Your task to perform on an android device: toggle sleep mode Image 0: 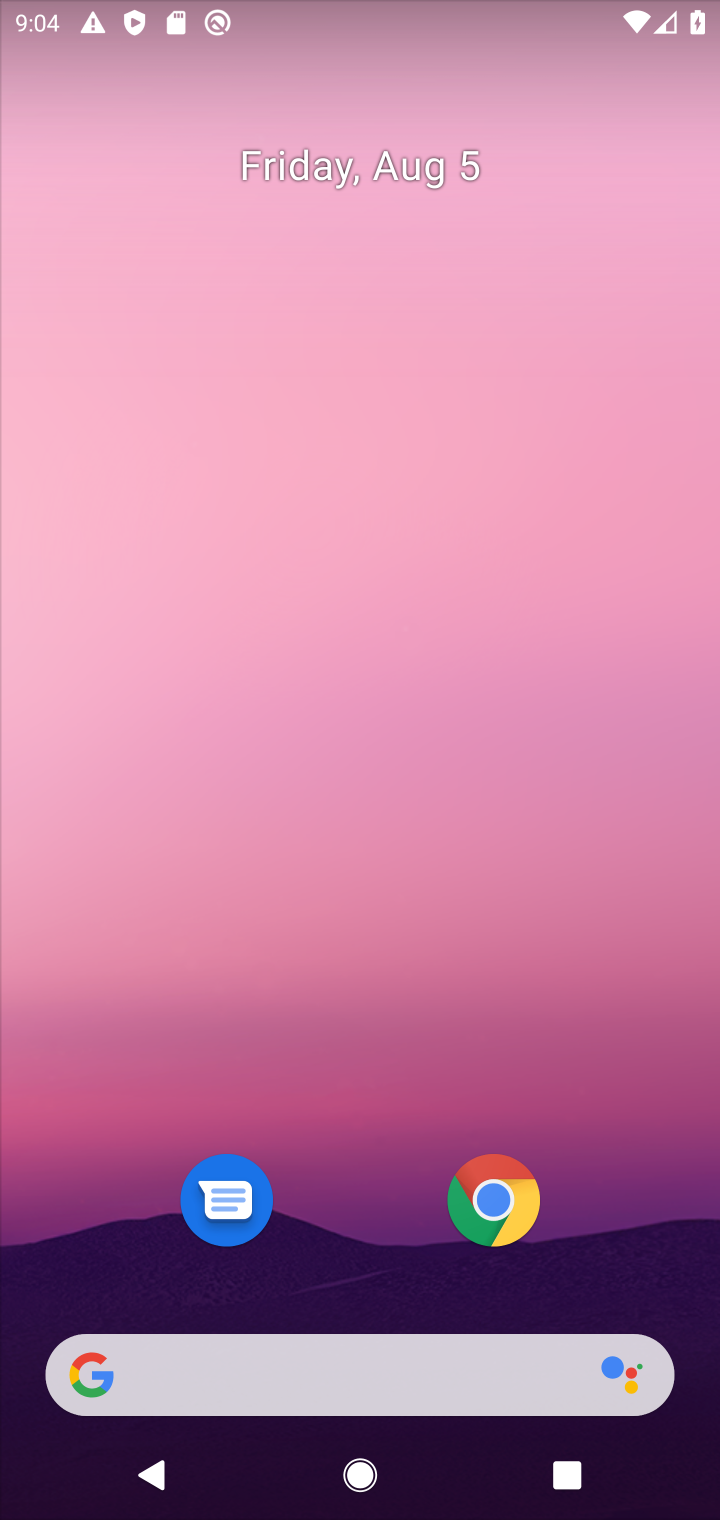
Step 0: drag from (623, 1176) to (657, 204)
Your task to perform on an android device: toggle sleep mode Image 1: 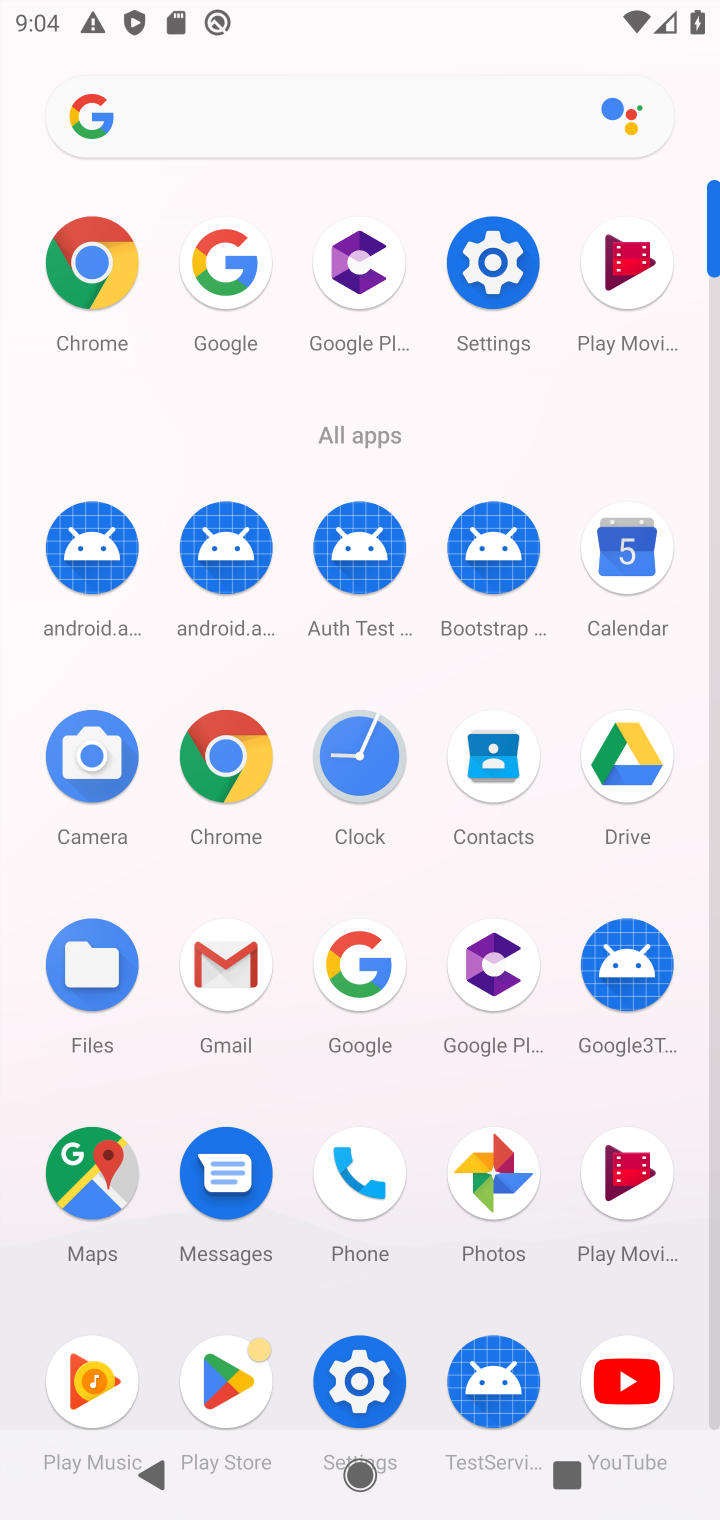
Step 1: click (351, 1387)
Your task to perform on an android device: toggle sleep mode Image 2: 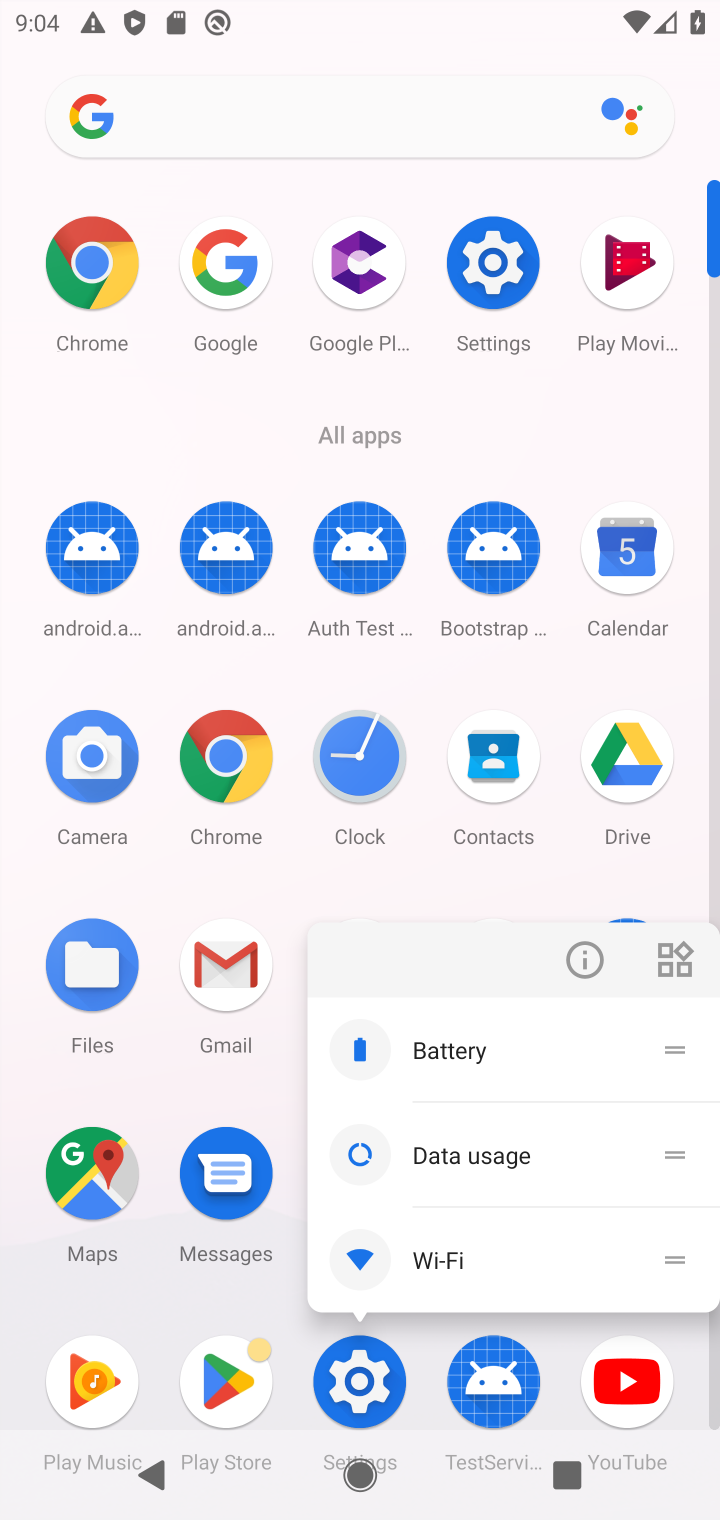
Step 2: click (355, 1366)
Your task to perform on an android device: toggle sleep mode Image 3: 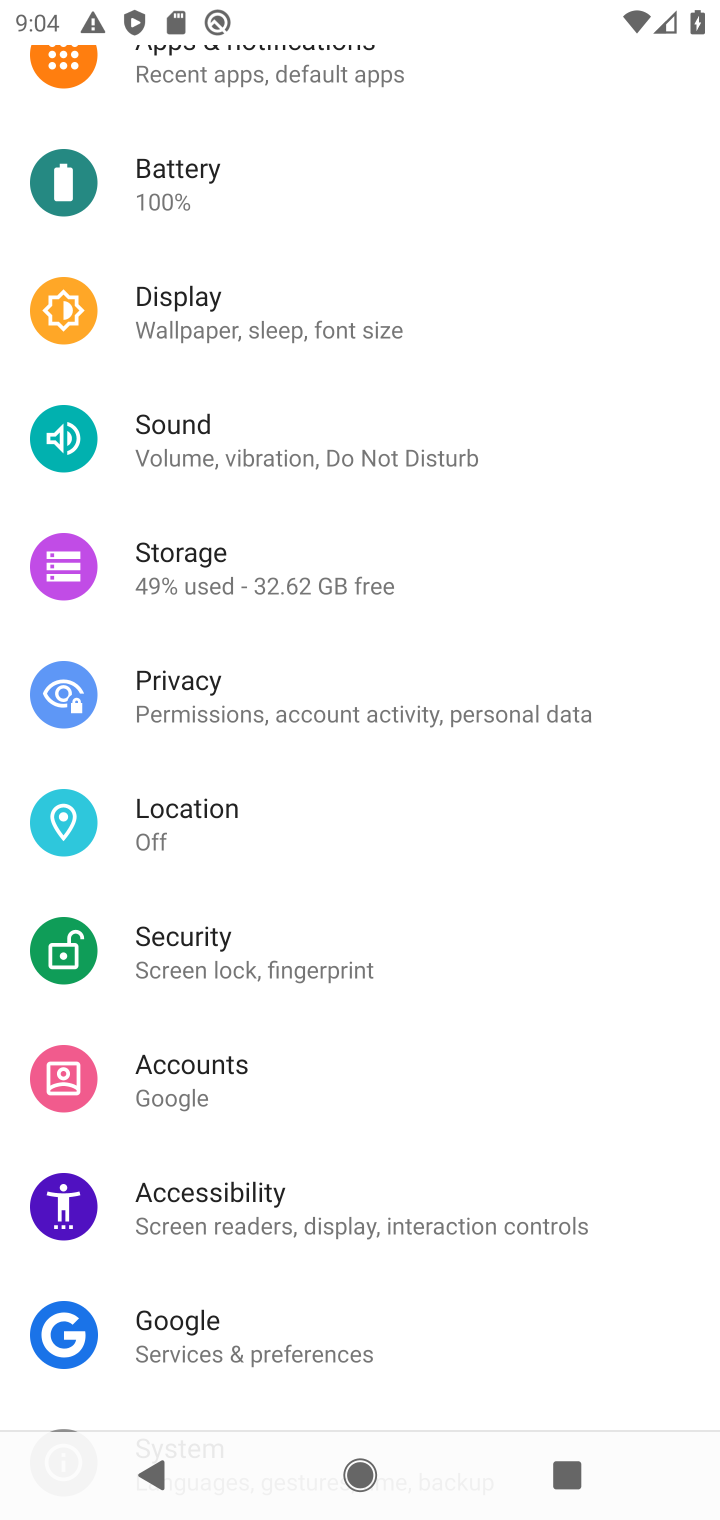
Step 3: click (226, 339)
Your task to perform on an android device: toggle sleep mode Image 4: 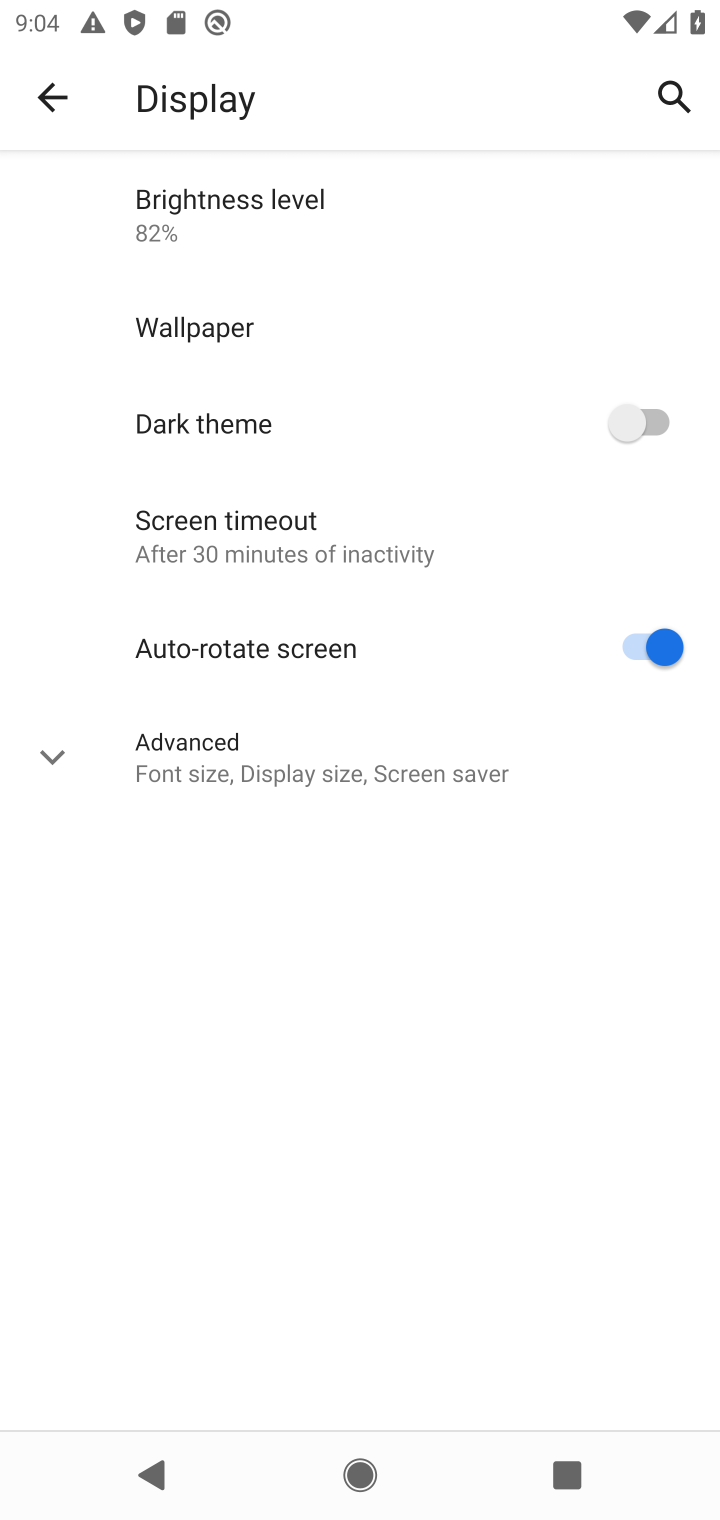
Step 4: click (275, 530)
Your task to perform on an android device: toggle sleep mode Image 5: 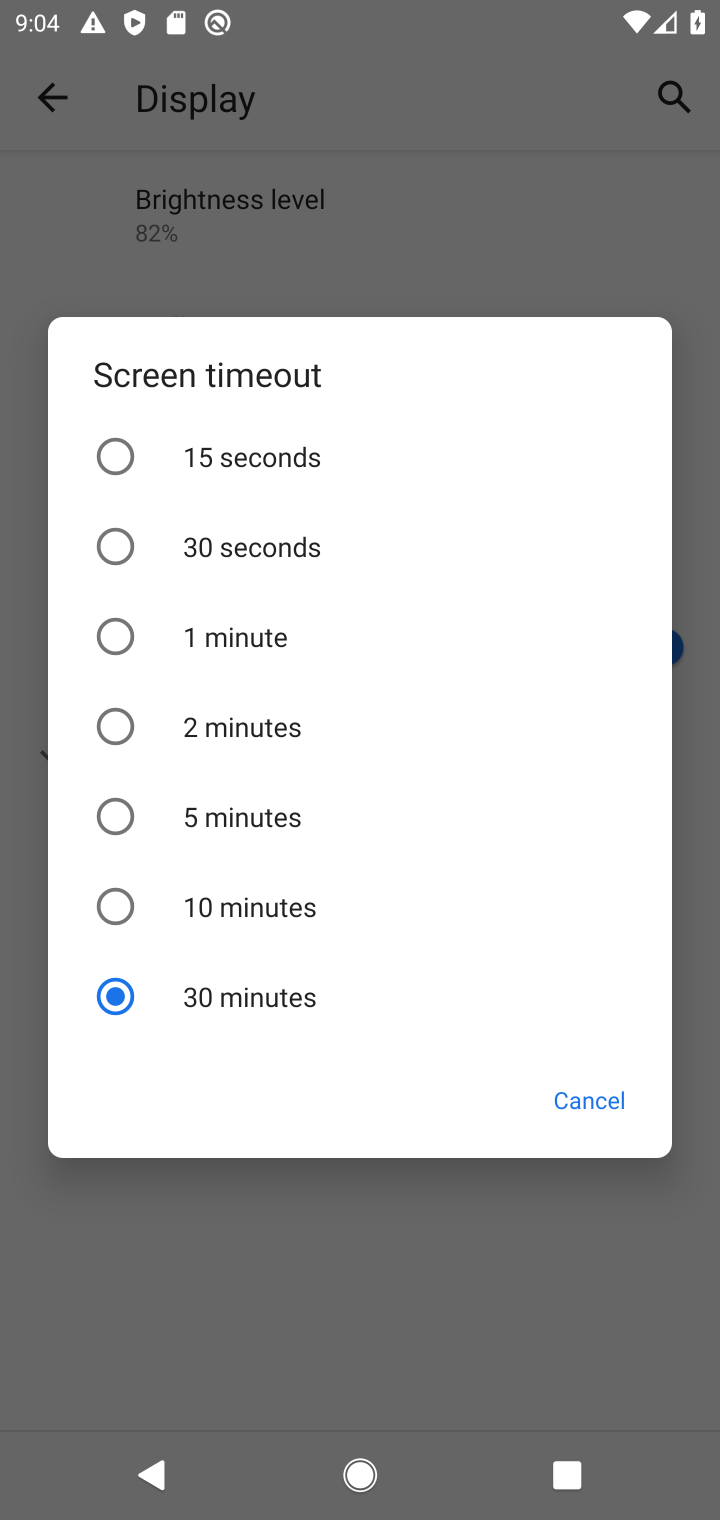
Step 5: click (256, 925)
Your task to perform on an android device: toggle sleep mode Image 6: 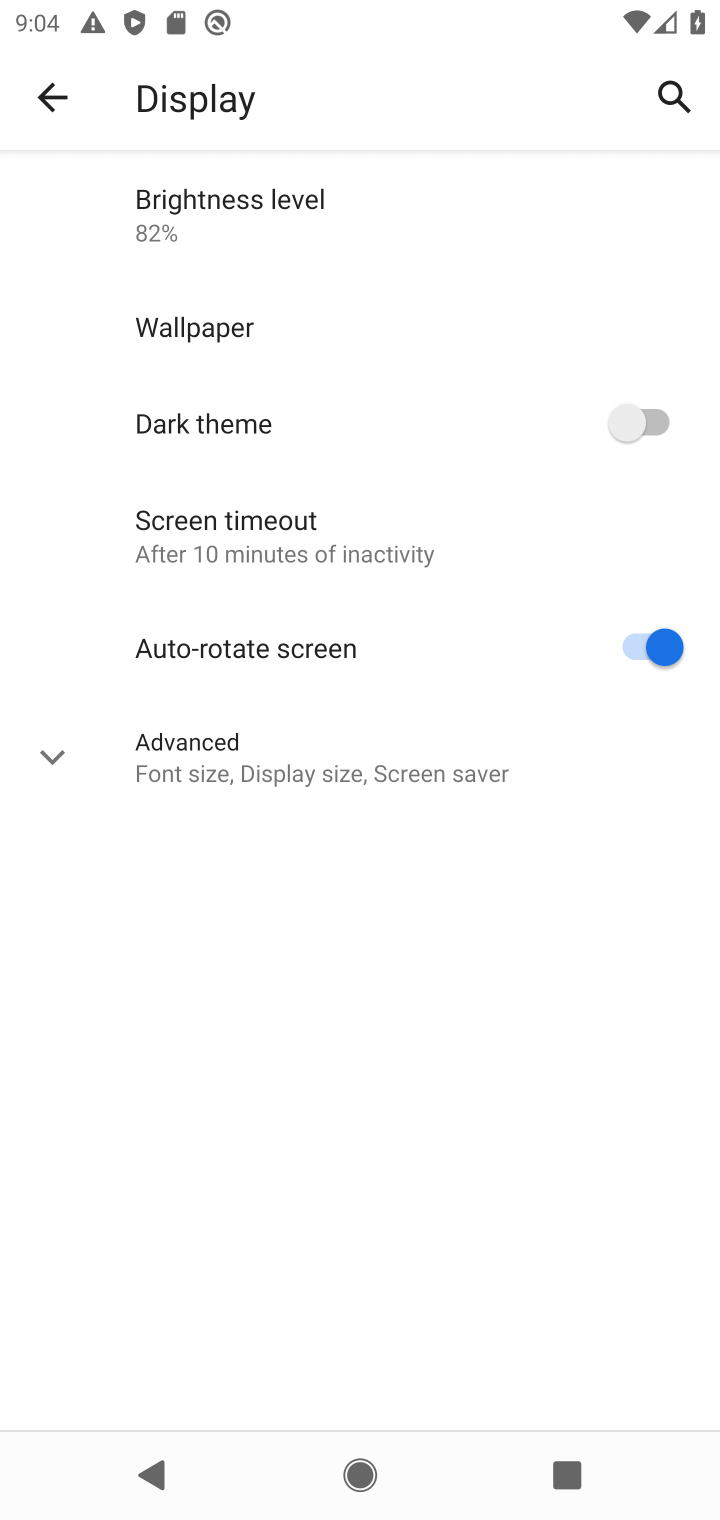
Step 6: task complete